Your task to perform on an android device: check out phone information Image 0: 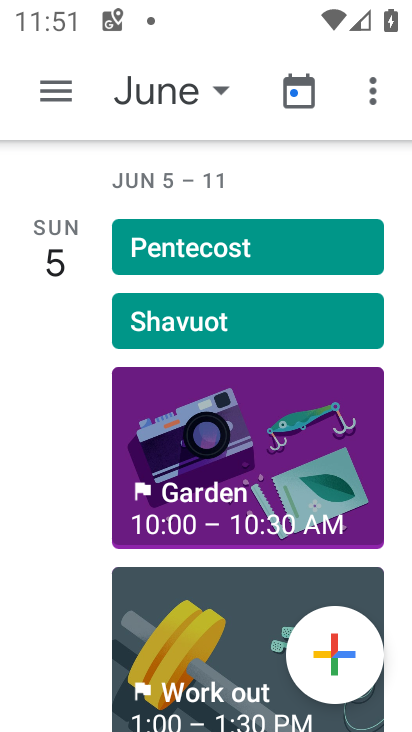
Step 0: press home button
Your task to perform on an android device: check out phone information Image 1: 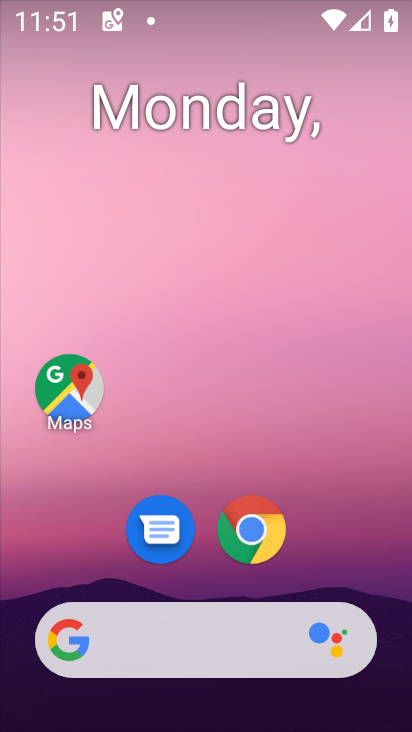
Step 1: drag from (286, 676) to (343, 264)
Your task to perform on an android device: check out phone information Image 2: 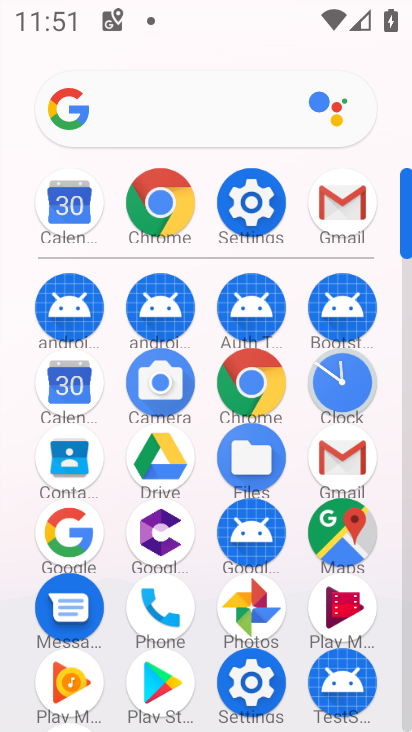
Step 2: click (248, 199)
Your task to perform on an android device: check out phone information Image 3: 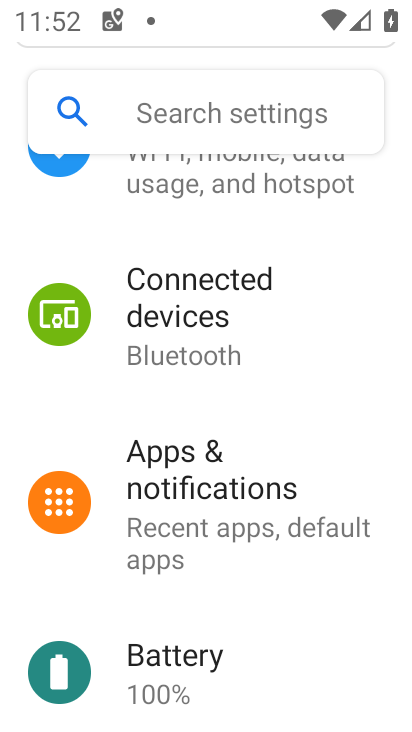
Step 3: click (191, 82)
Your task to perform on an android device: check out phone information Image 4: 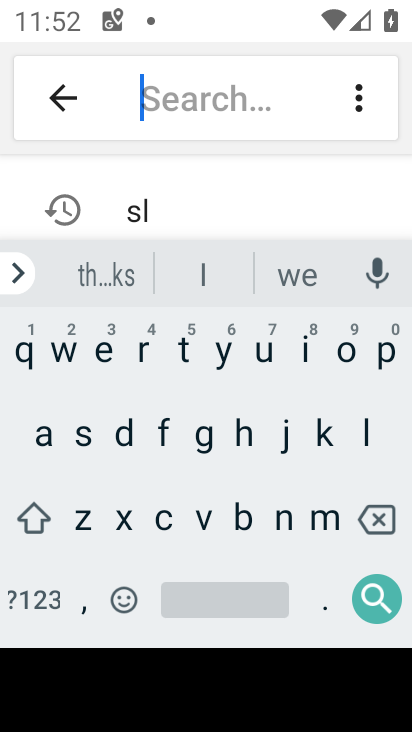
Step 4: click (42, 435)
Your task to perform on an android device: check out phone information Image 5: 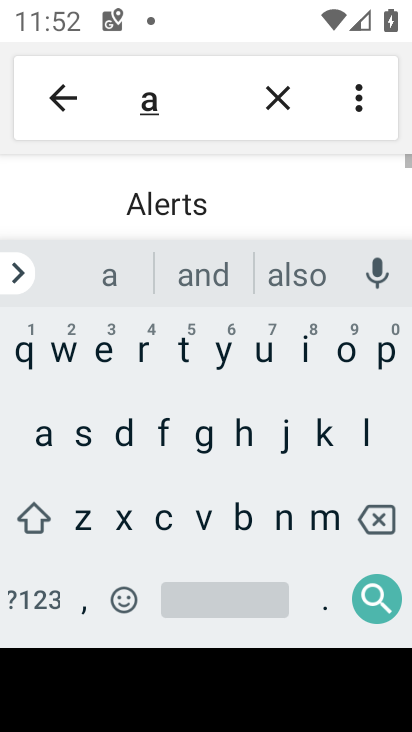
Step 5: click (245, 517)
Your task to perform on an android device: check out phone information Image 6: 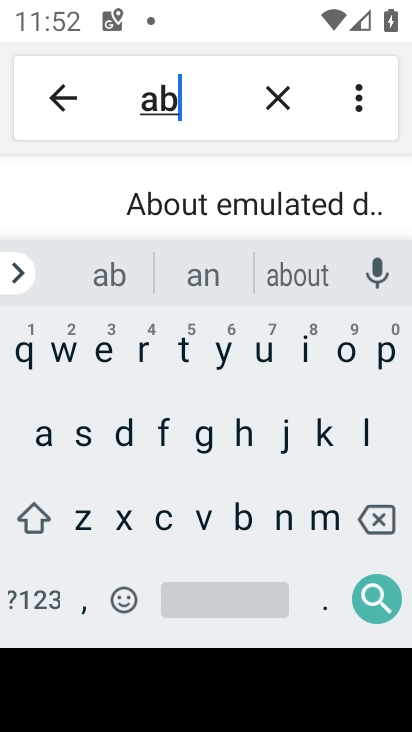
Step 6: click (249, 190)
Your task to perform on an android device: check out phone information Image 7: 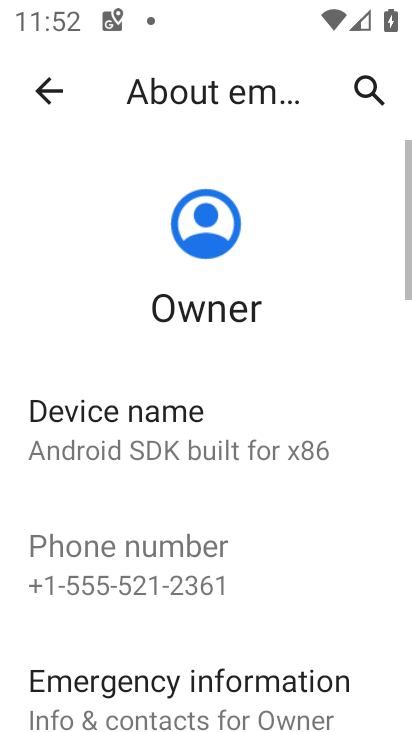
Step 7: task complete